Your task to perform on an android device: Open Yahoo.com Image 0: 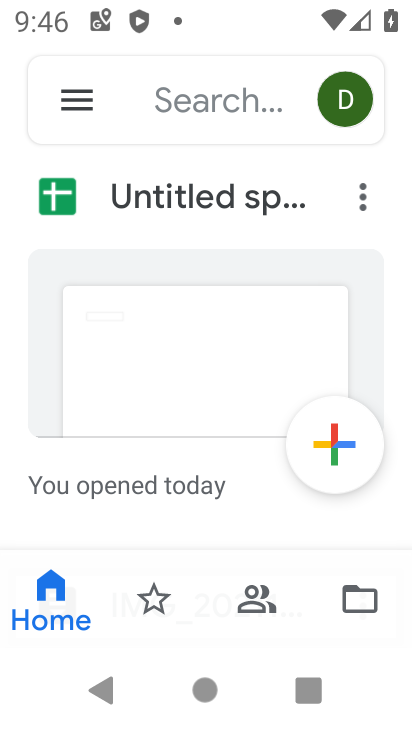
Step 0: press home button
Your task to perform on an android device: Open Yahoo.com Image 1: 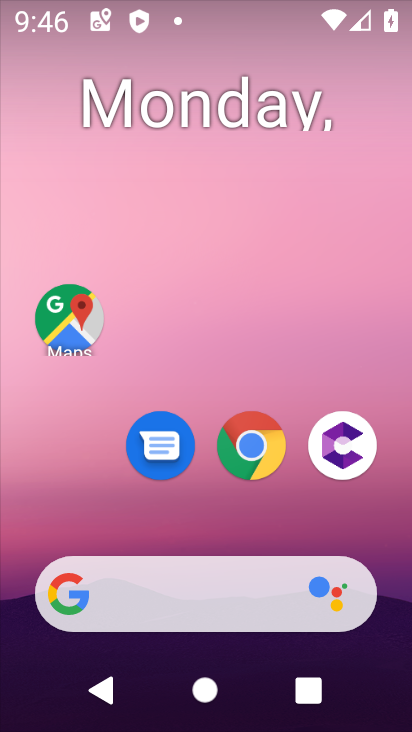
Step 1: click (60, 613)
Your task to perform on an android device: Open Yahoo.com Image 2: 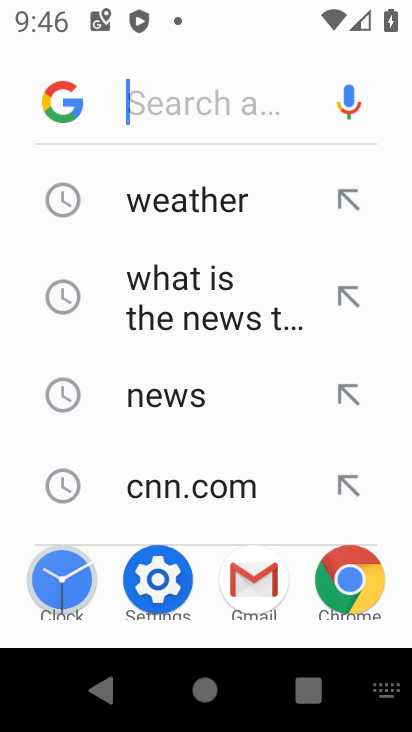
Step 2: type "Yahoo.com"
Your task to perform on an android device: Open Yahoo.com Image 3: 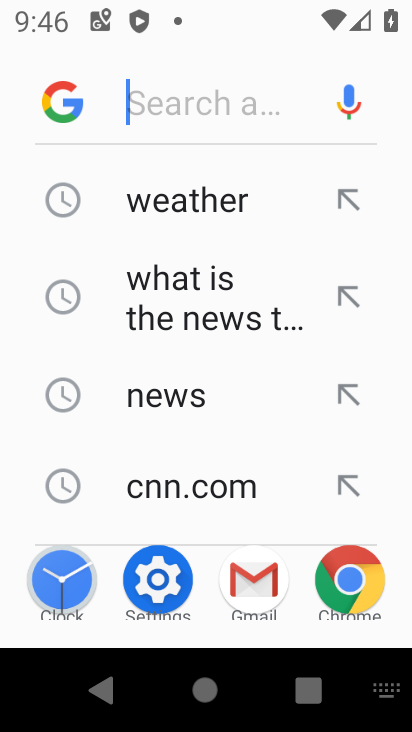
Step 3: click (238, 87)
Your task to perform on an android device: Open Yahoo.com Image 4: 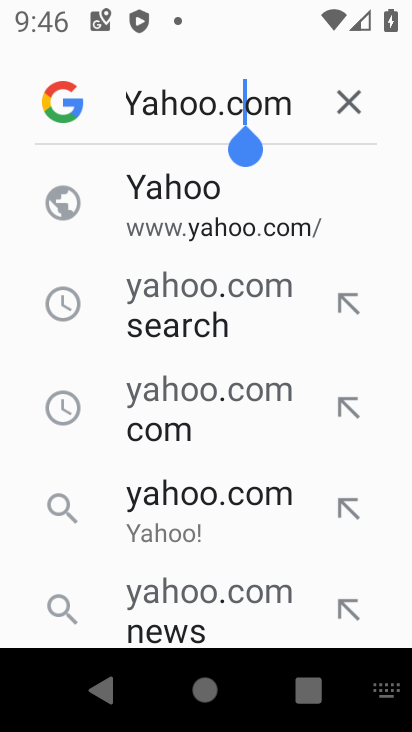
Step 4: click (152, 184)
Your task to perform on an android device: Open Yahoo.com Image 5: 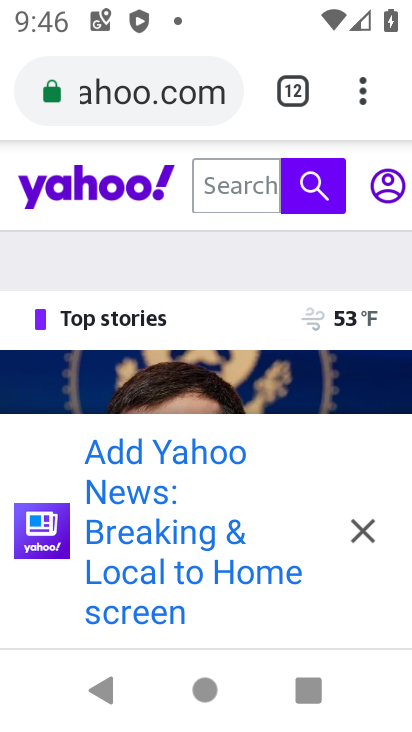
Step 5: task complete